Your task to perform on an android device: open device folders in google photos Image 0: 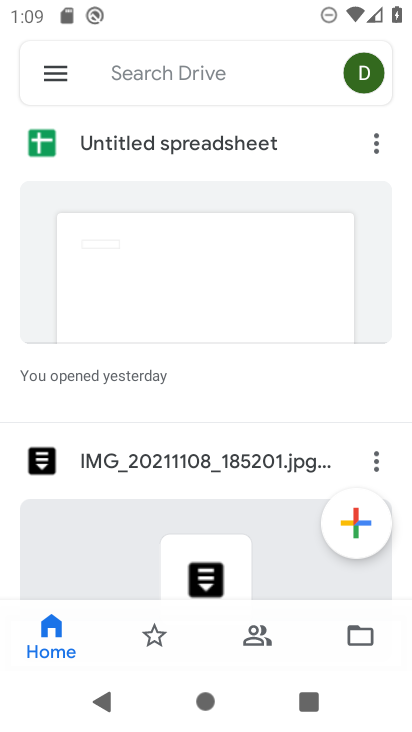
Step 0: press home button
Your task to perform on an android device: open device folders in google photos Image 1: 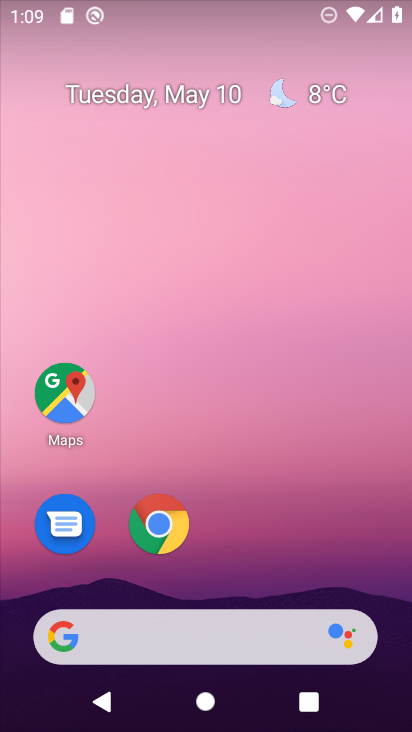
Step 1: drag from (233, 528) to (252, 38)
Your task to perform on an android device: open device folders in google photos Image 2: 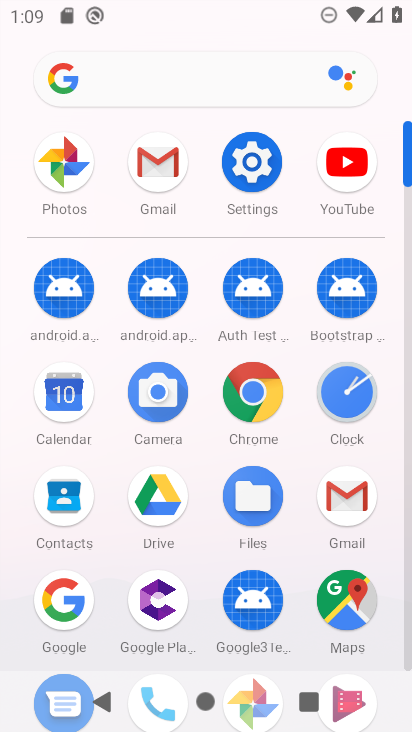
Step 2: click (72, 161)
Your task to perform on an android device: open device folders in google photos Image 3: 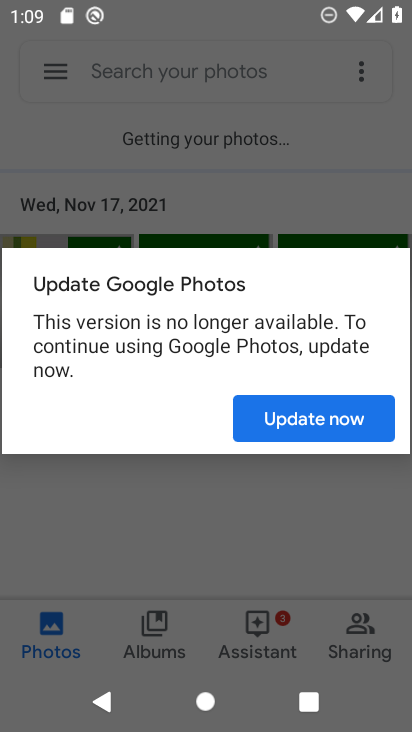
Step 3: click (59, 70)
Your task to perform on an android device: open device folders in google photos Image 4: 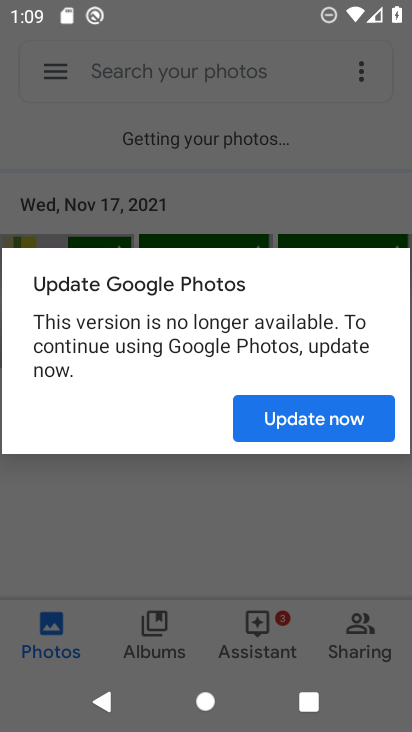
Step 4: click (264, 422)
Your task to perform on an android device: open device folders in google photos Image 5: 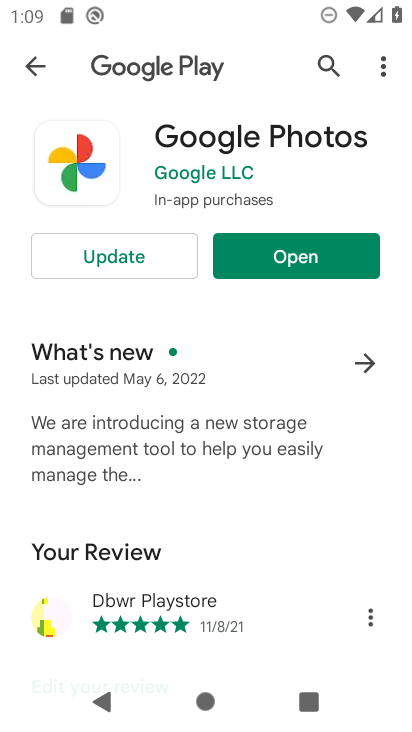
Step 5: click (302, 254)
Your task to perform on an android device: open device folders in google photos Image 6: 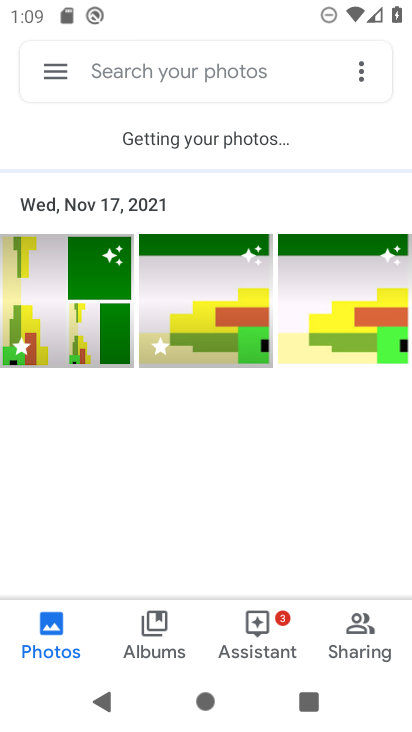
Step 6: click (66, 62)
Your task to perform on an android device: open device folders in google photos Image 7: 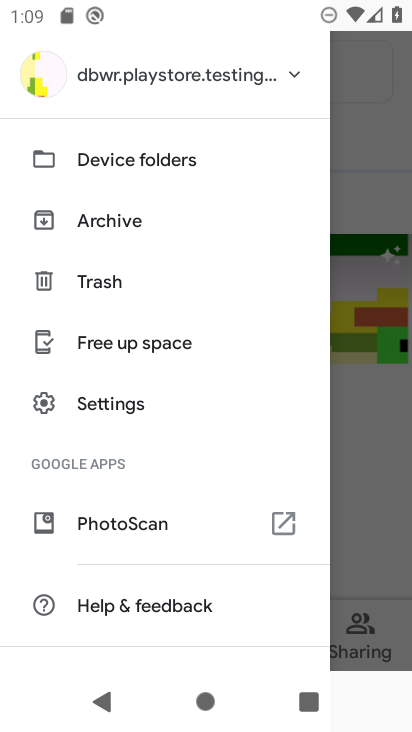
Step 7: click (128, 164)
Your task to perform on an android device: open device folders in google photos Image 8: 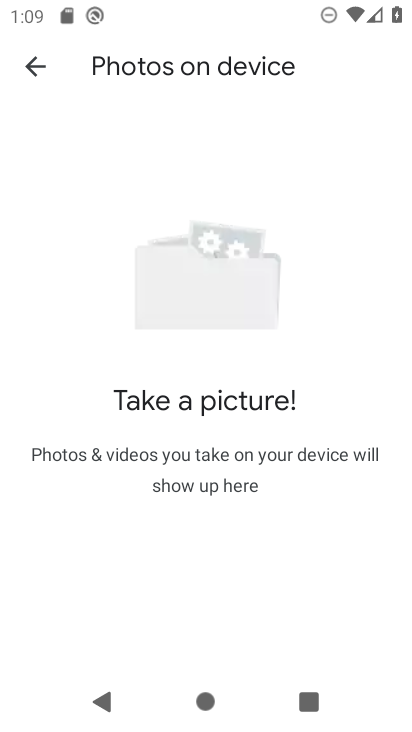
Step 8: task complete